Your task to perform on an android device: Go to Google maps Image 0: 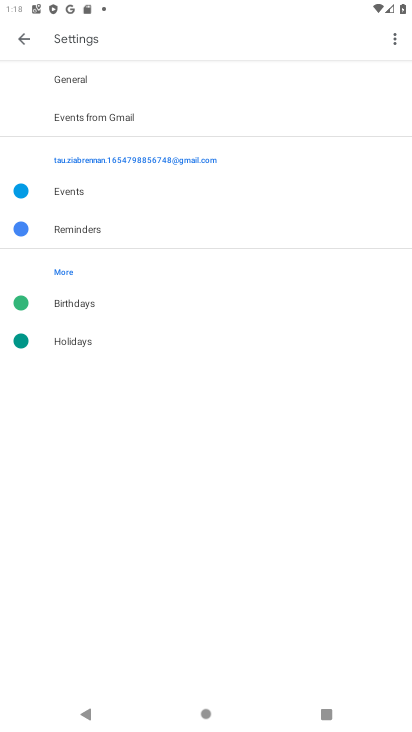
Step 0: press home button
Your task to perform on an android device: Go to Google maps Image 1: 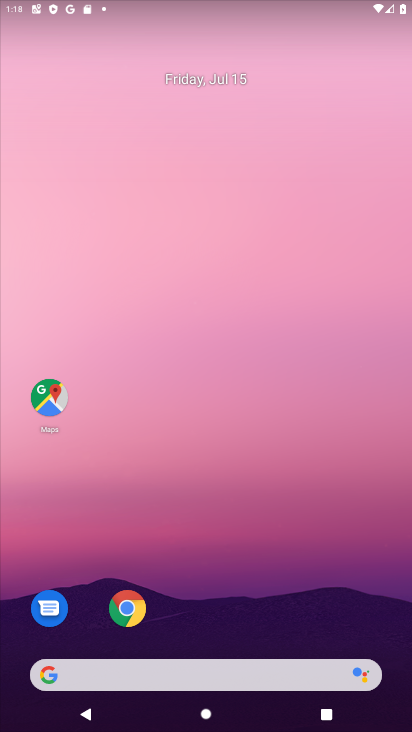
Step 1: click (52, 416)
Your task to perform on an android device: Go to Google maps Image 2: 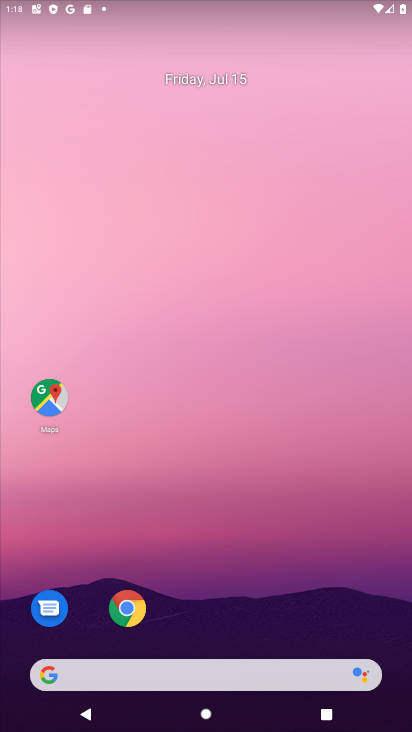
Step 2: click (52, 416)
Your task to perform on an android device: Go to Google maps Image 3: 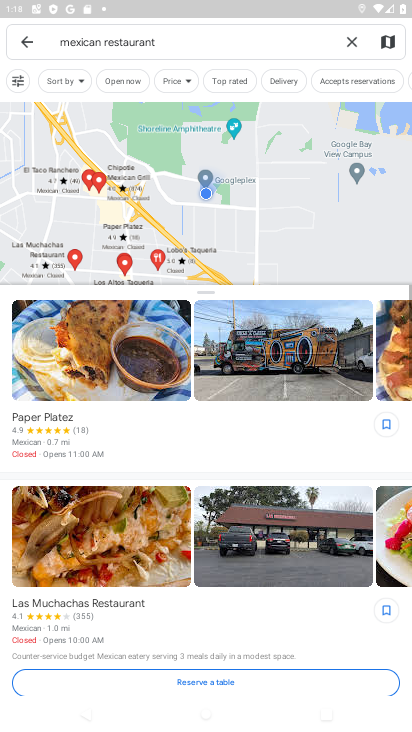
Step 3: task complete